Your task to perform on an android device: Is it going to rain today? Image 0: 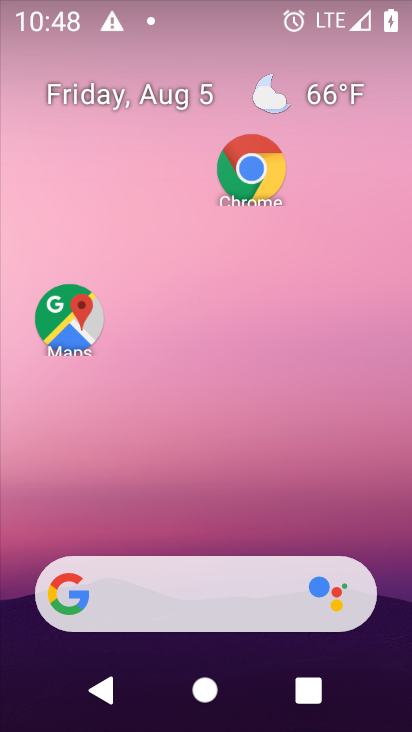
Step 0: drag from (226, 524) to (155, 134)
Your task to perform on an android device: Is it going to rain today? Image 1: 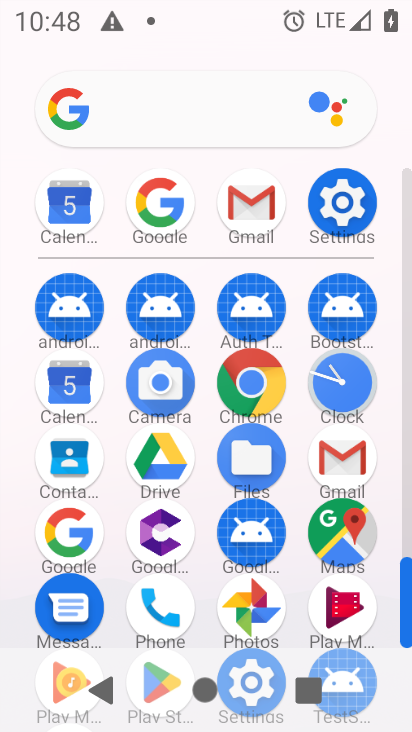
Step 1: click (155, 209)
Your task to perform on an android device: Is it going to rain today? Image 2: 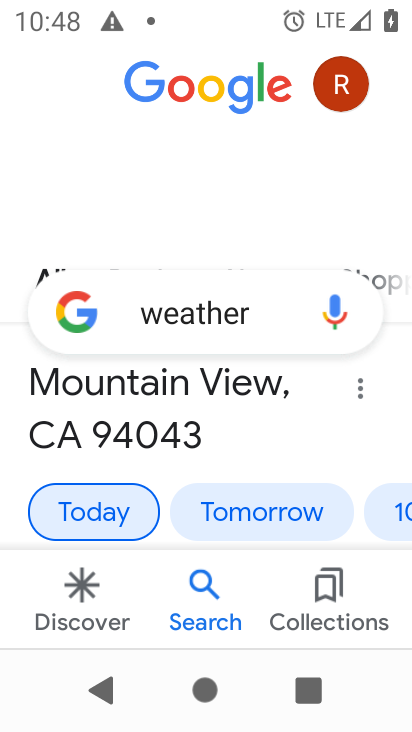
Step 2: task complete